Your task to perform on an android device: Google the capital of Canada Image 0: 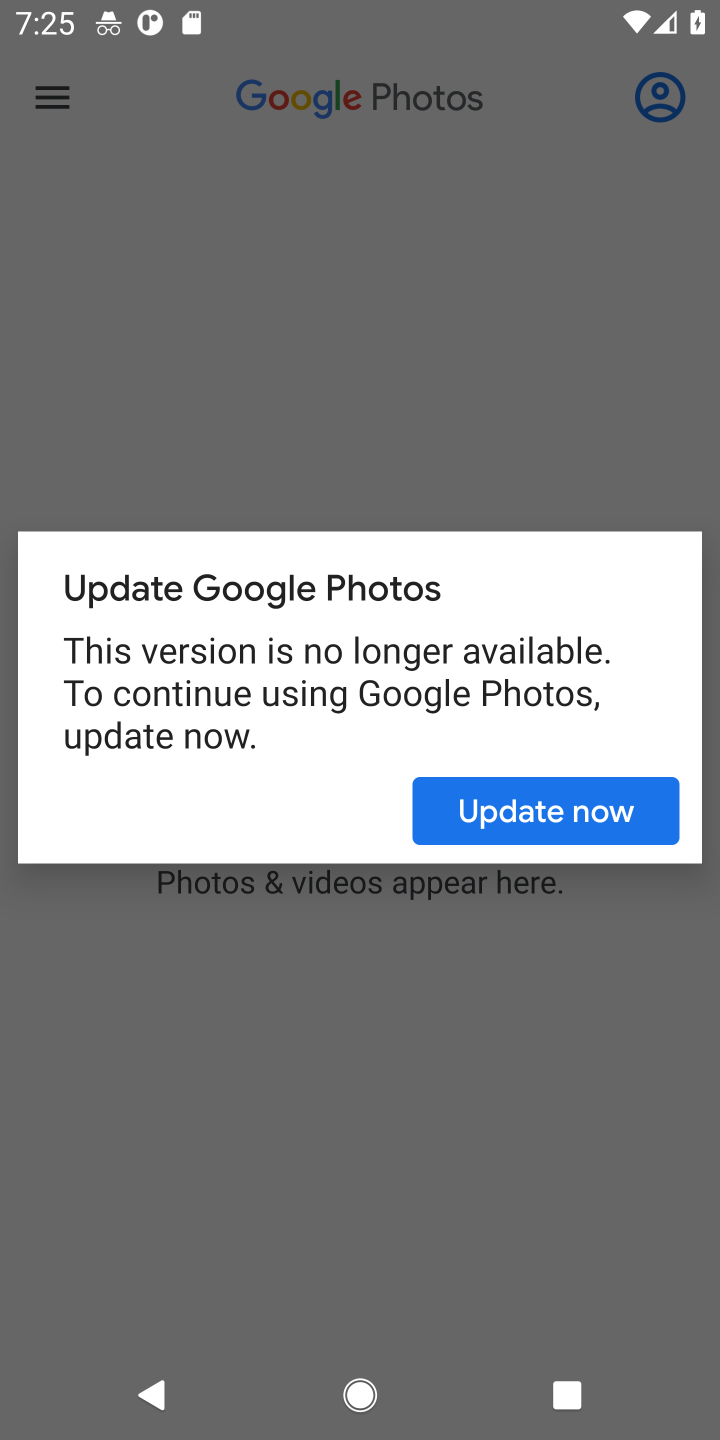
Step 0: press home button
Your task to perform on an android device: Google the capital of Canada Image 1: 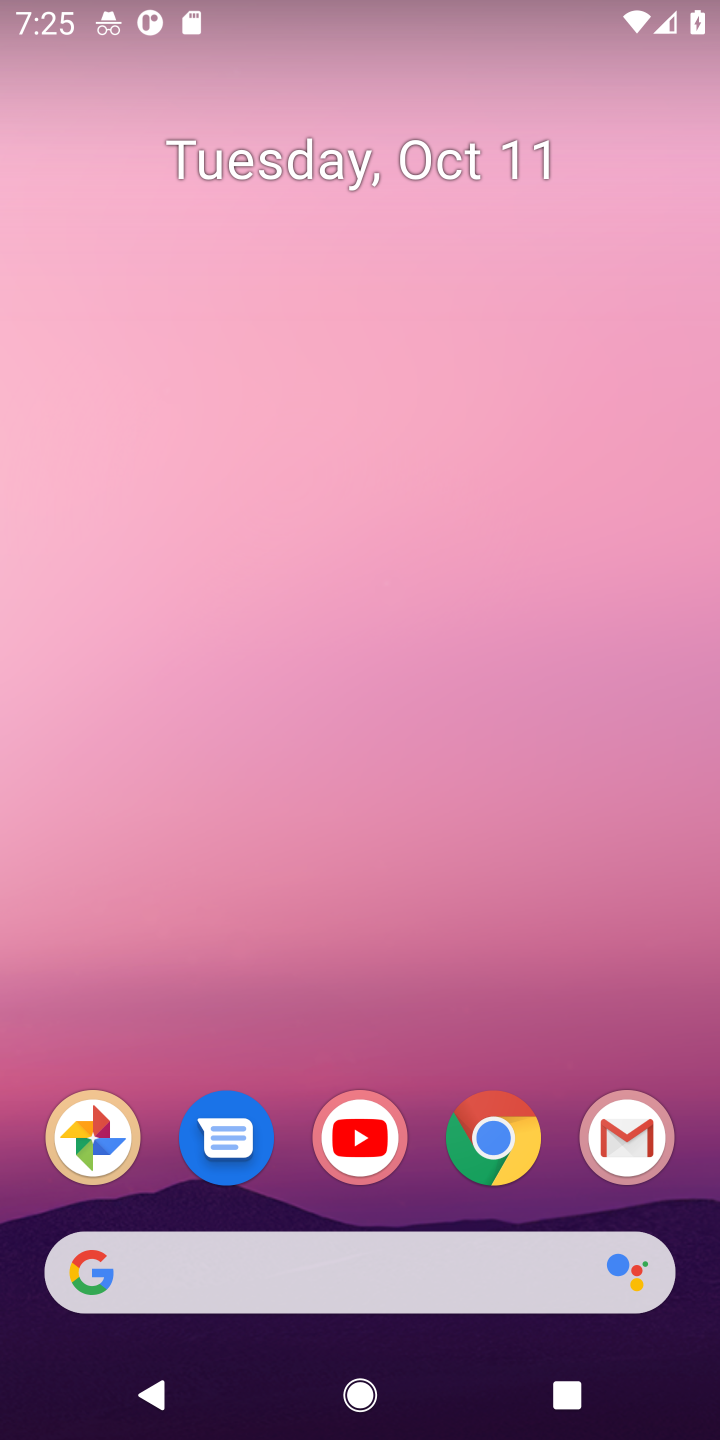
Step 1: drag from (384, 1209) to (433, 556)
Your task to perform on an android device: Google the capital of Canada Image 2: 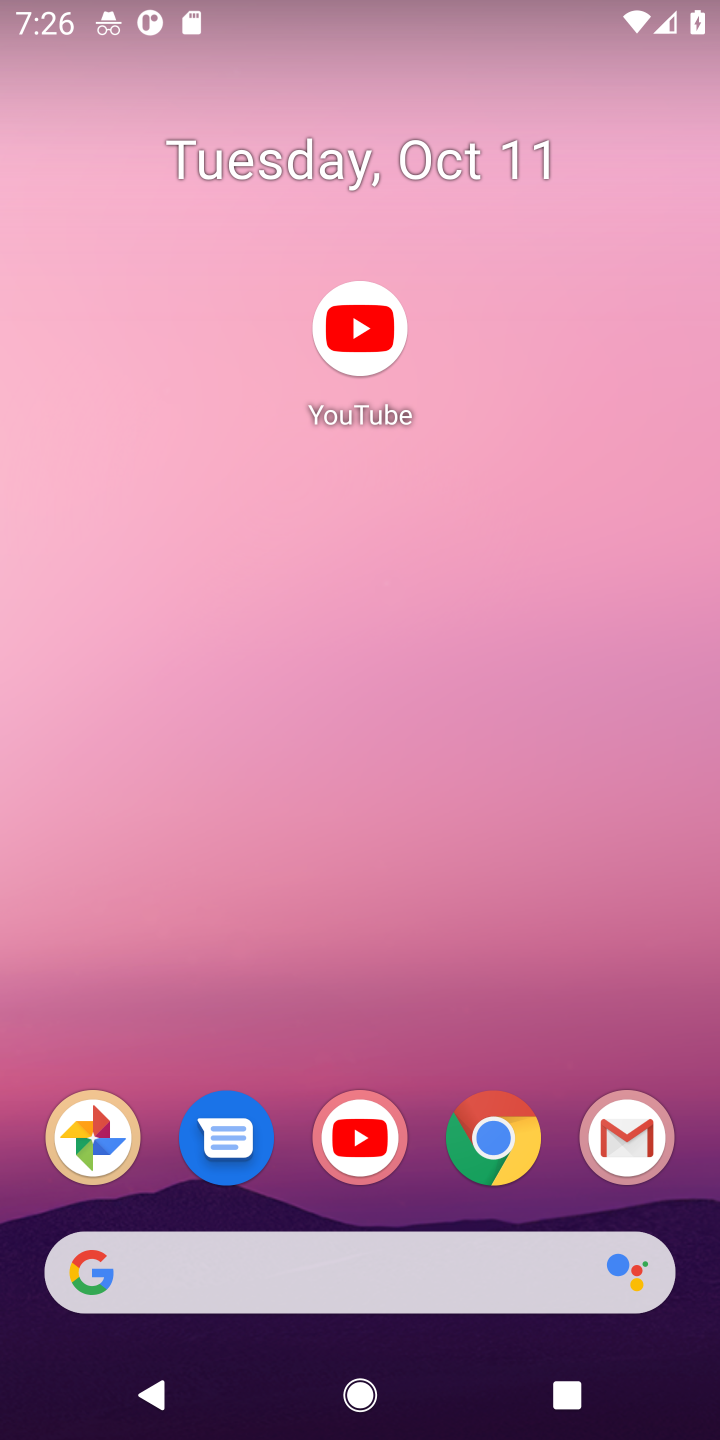
Step 2: drag from (367, 1169) to (389, 358)
Your task to perform on an android device: Google the capital of Canada Image 3: 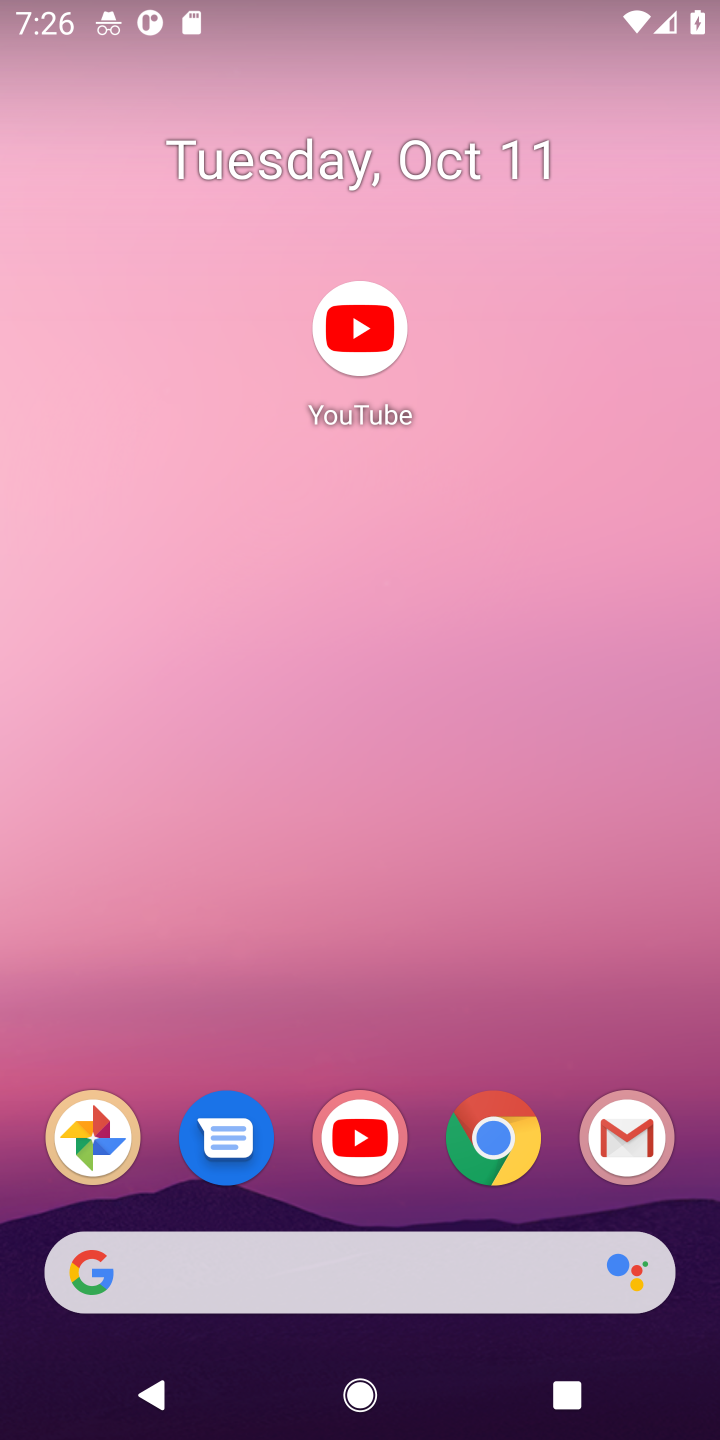
Step 3: click (258, 1257)
Your task to perform on an android device: Google the capital of Canada Image 4: 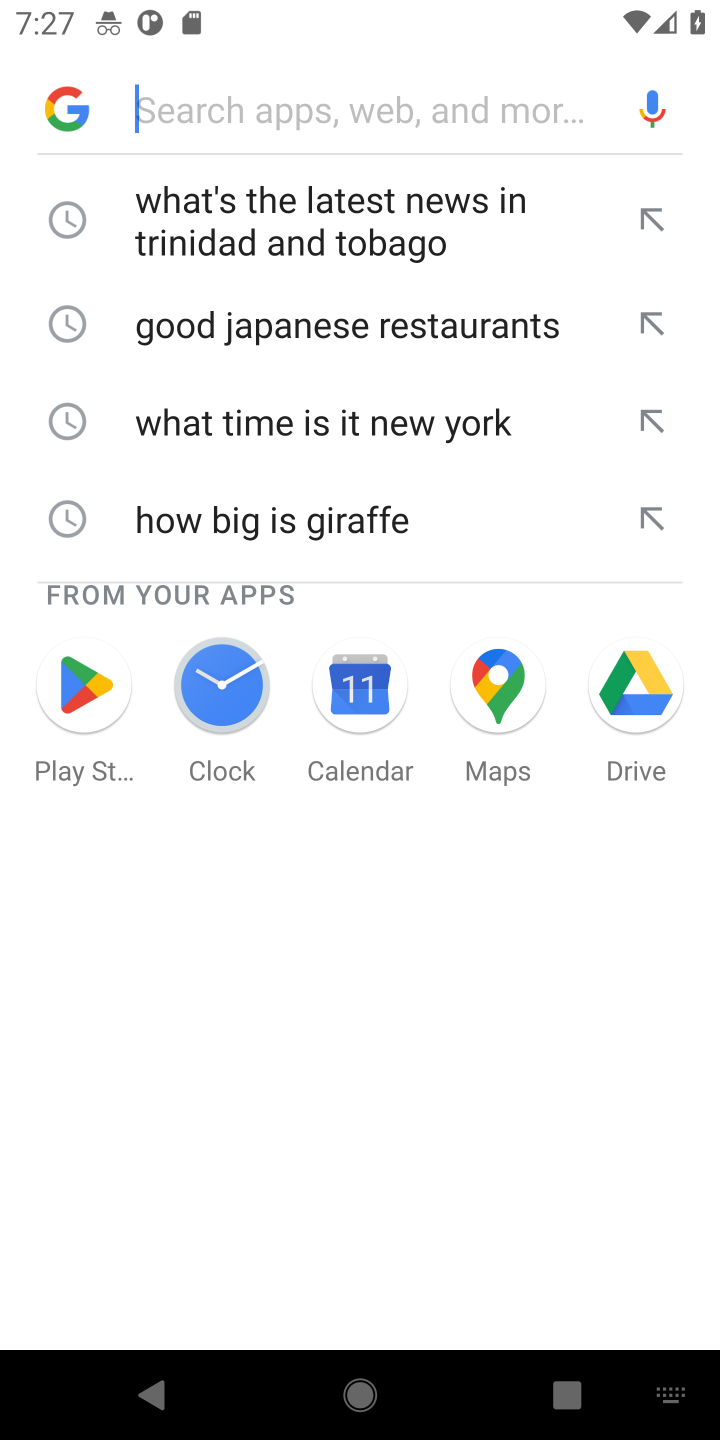
Step 4: type "Google the capital of Canada"
Your task to perform on an android device: Google the capital of Canada Image 5: 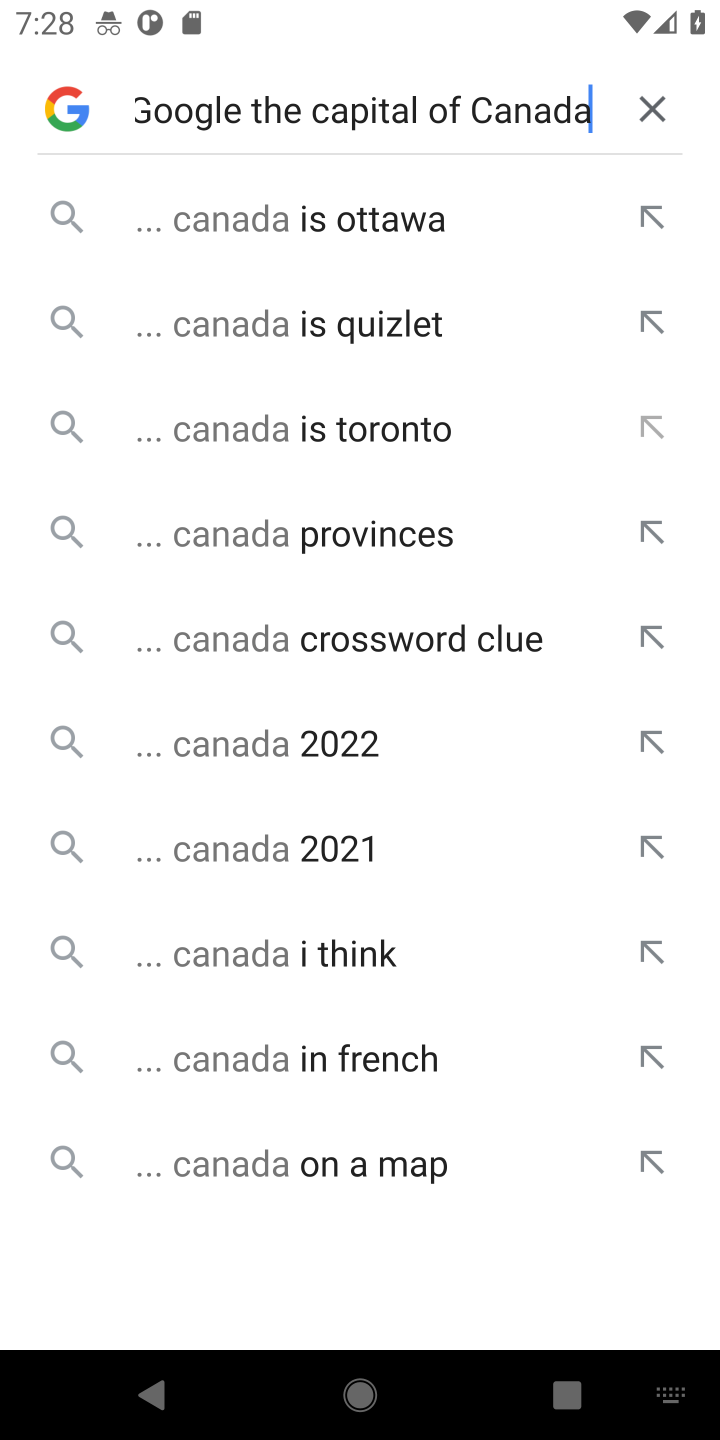
Step 5: task complete